Your task to perform on an android device: change keyboard looks Image 0: 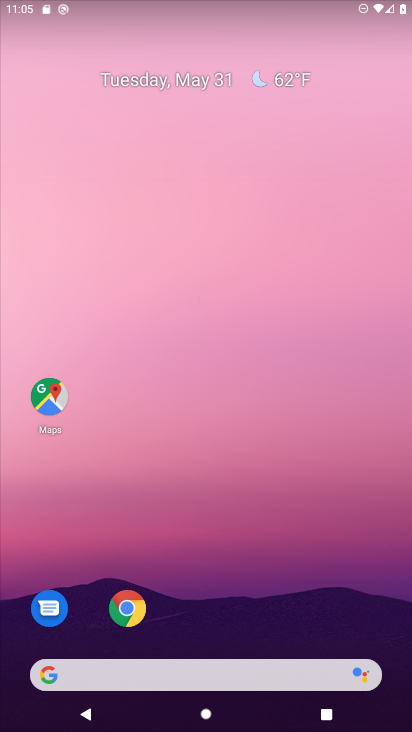
Step 0: drag from (303, 574) to (311, 163)
Your task to perform on an android device: change keyboard looks Image 1: 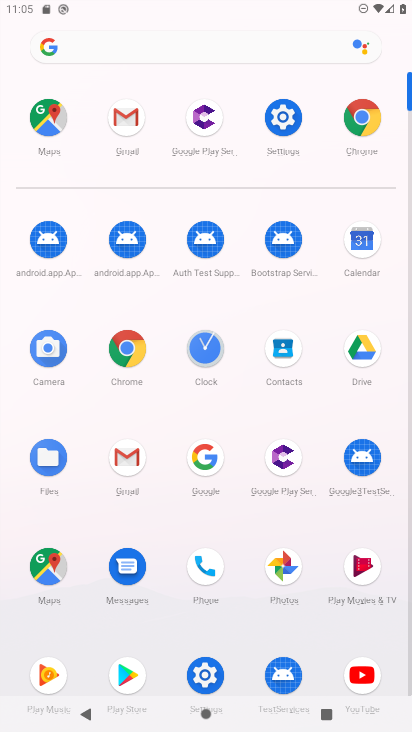
Step 1: click (310, 131)
Your task to perform on an android device: change keyboard looks Image 2: 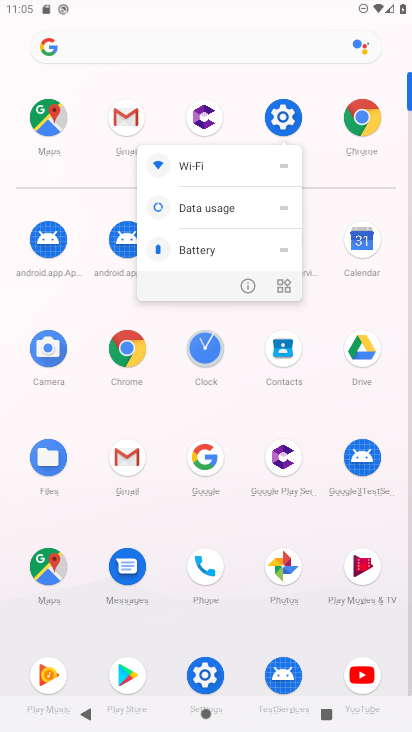
Step 2: click (276, 136)
Your task to perform on an android device: change keyboard looks Image 3: 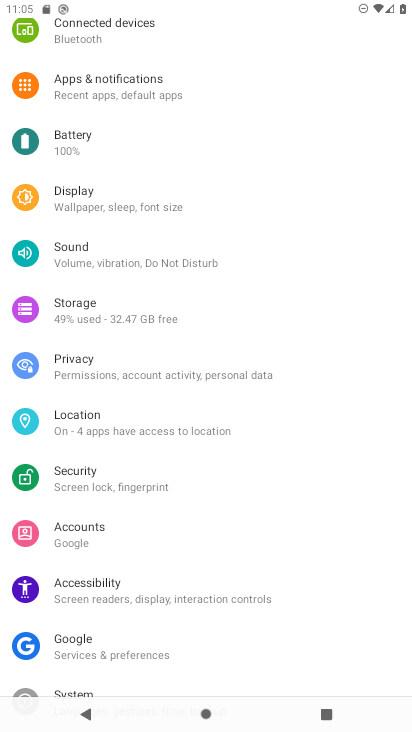
Step 3: drag from (265, 560) to (285, 344)
Your task to perform on an android device: change keyboard looks Image 4: 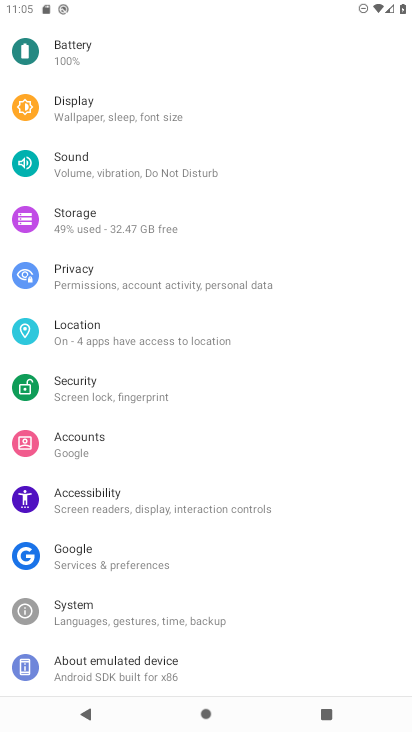
Step 4: click (186, 626)
Your task to perform on an android device: change keyboard looks Image 5: 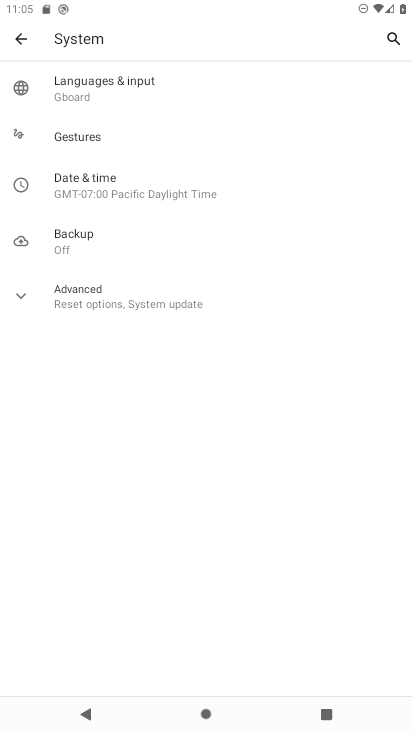
Step 5: click (155, 71)
Your task to perform on an android device: change keyboard looks Image 6: 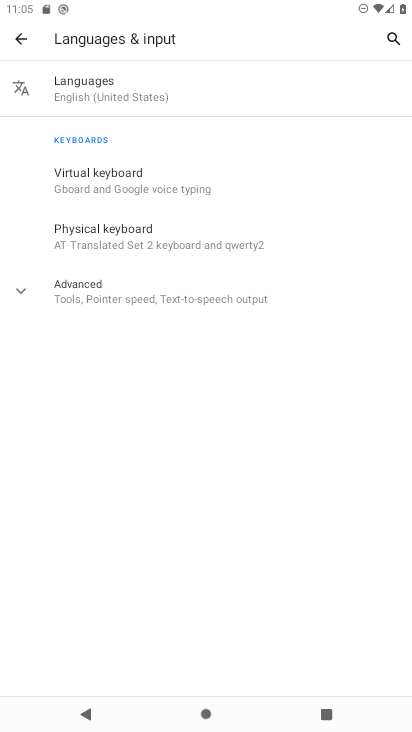
Step 6: click (160, 168)
Your task to perform on an android device: change keyboard looks Image 7: 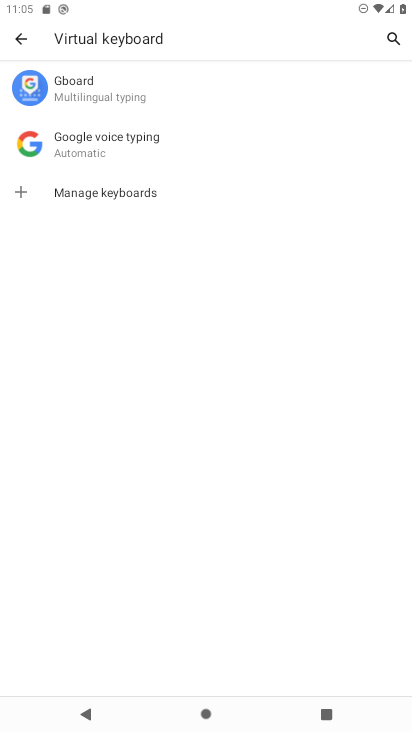
Step 7: click (141, 84)
Your task to perform on an android device: change keyboard looks Image 8: 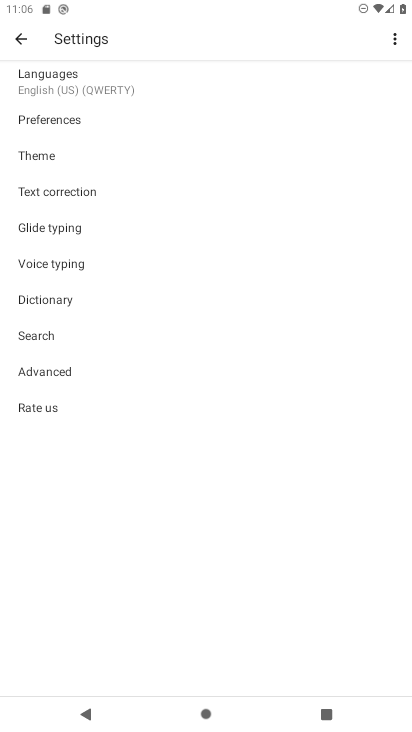
Step 8: click (81, 148)
Your task to perform on an android device: change keyboard looks Image 9: 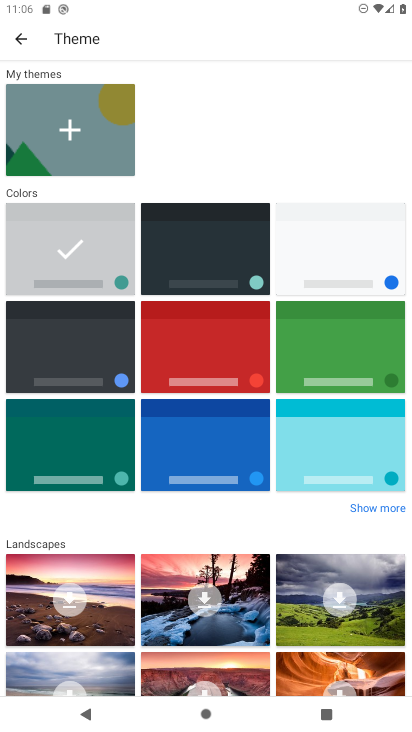
Step 9: click (212, 239)
Your task to perform on an android device: change keyboard looks Image 10: 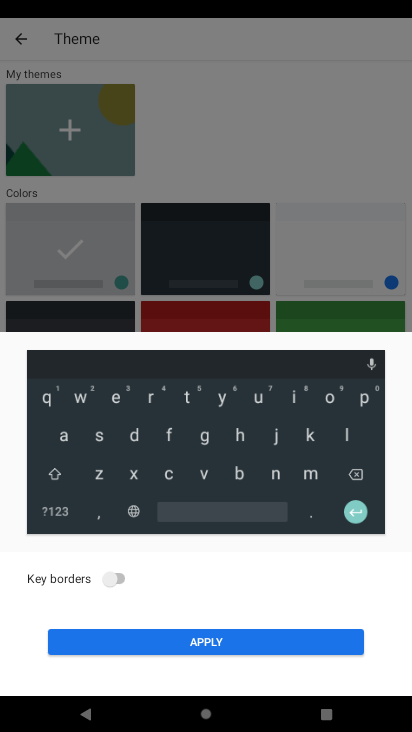
Step 10: click (226, 641)
Your task to perform on an android device: change keyboard looks Image 11: 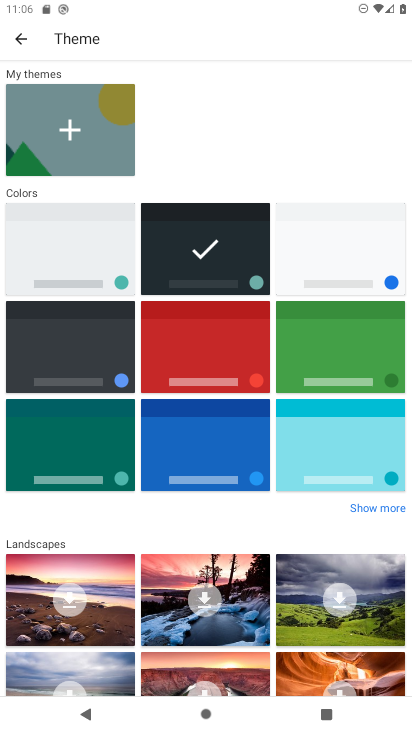
Step 11: task complete